Your task to perform on an android device: Go to privacy settings Image 0: 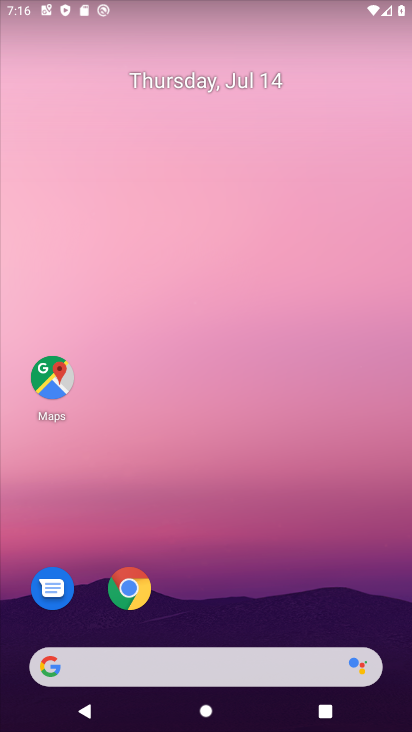
Step 0: drag from (358, 627) to (220, 33)
Your task to perform on an android device: Go to privacy settings Image 1: 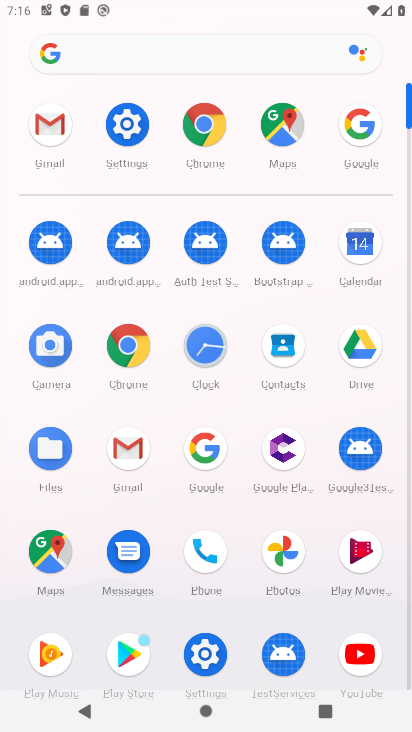
Step 1: click (198, 659)
Your task to perform on an android device: Go to privacy settings Image 2: 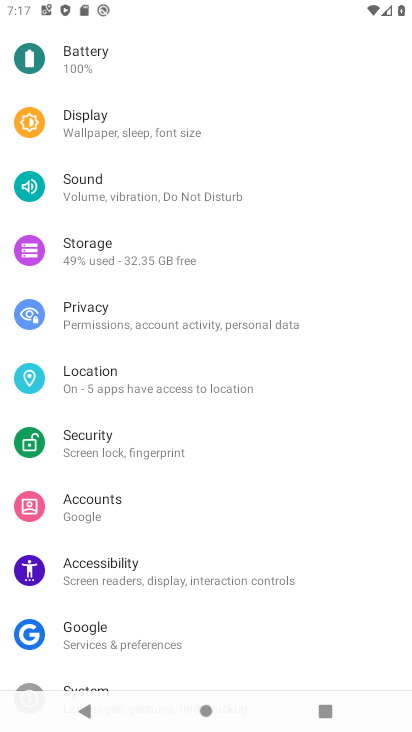
Step 2: click (129, 299)
Your task to perform on an android device: Go to privacy settings Image 3: 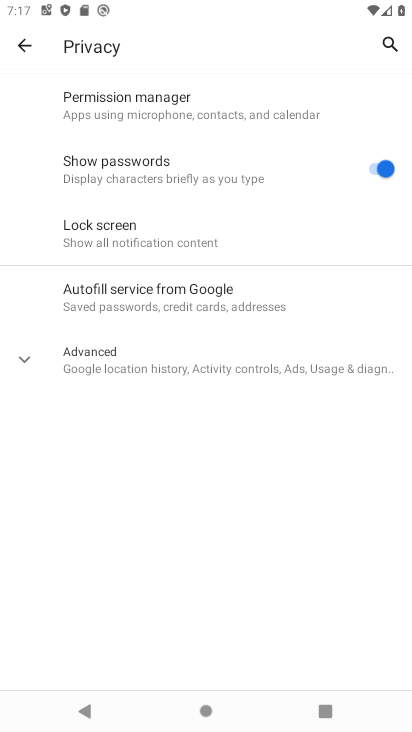
Step 3: task complete